Your task to perform on an android device: Open sound settings Image 0: 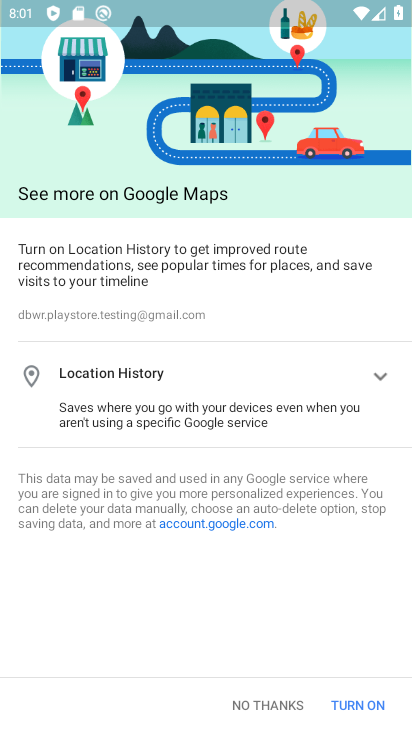
Step 0: press home button
Your task to perform on an android device: Open sound settings Image 1: 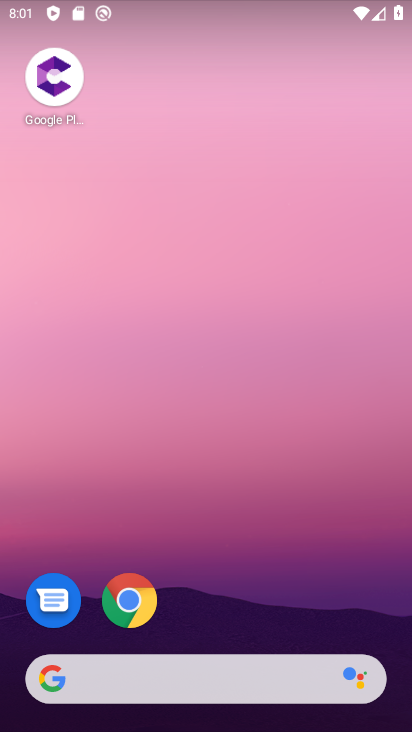
Step 1: drag from (57, 552) to (236, 193)
Your task to perform on an android device: Open sound settings Image 2: 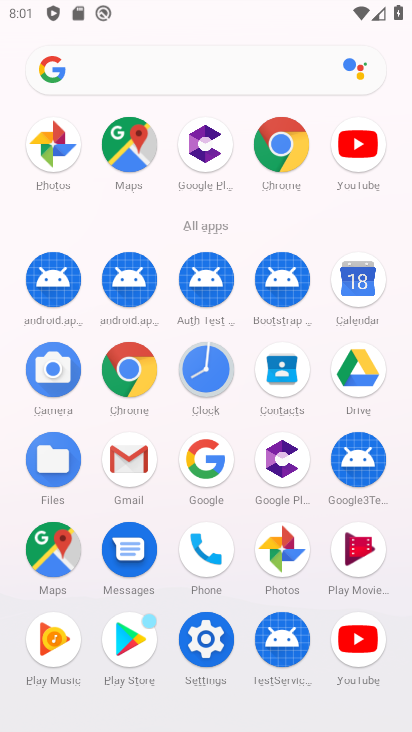
Step 2: click (201, 648)
Your task to perform on an android device: Open sound settings Image 3: 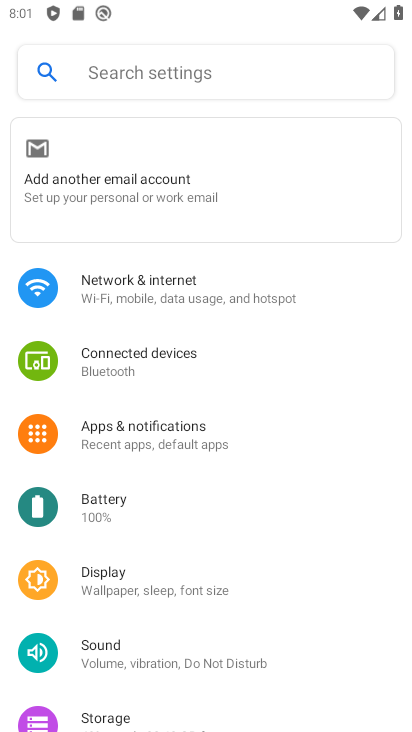
Step 3: click (161, 645)
Your task to perform on an android device: Open sound settings Image 4: 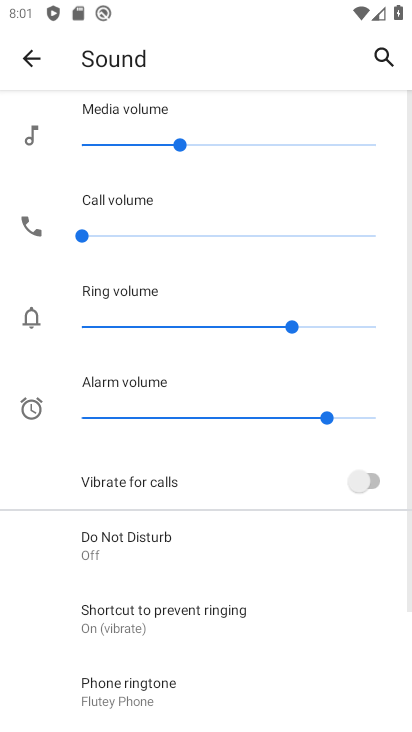
Step 4: task complete